Your task to perform on an android device: turn on the 24-hour format for clock Image 0: 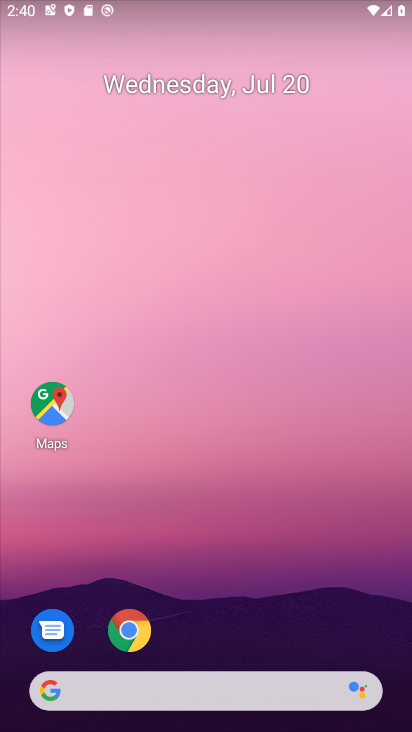
Step 0: drag from (347, 620) to (401, 334)
Your task to perform on an android device: turn on the 24-hour format for clock Image 1: 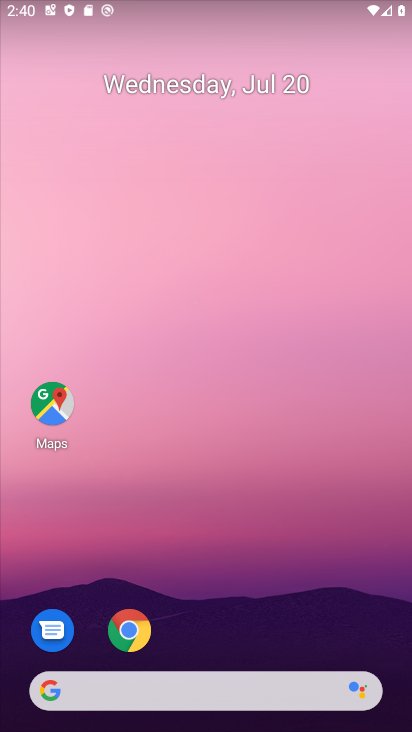
Step 1: drag from (341, 556) to (410, 417)
Your task to perform on an android device: turn on the 24-hour format for clock Image 2: 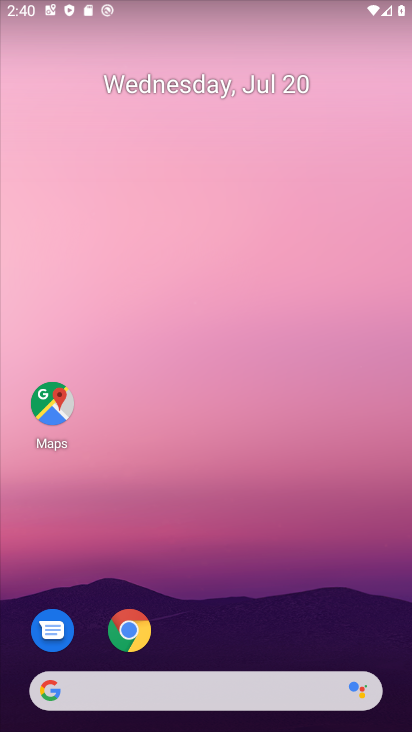
Step 2: drag from (291, 626) to (399, 308)
Your task to perform on an android device: turn on the 24-hour format for clock Image 3: 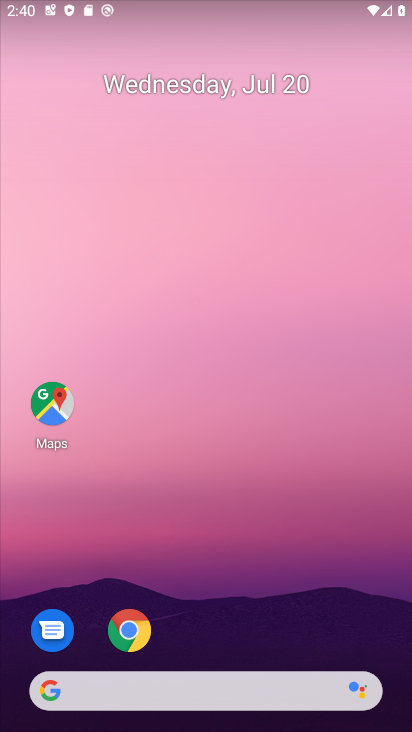
Step 3: drag from (328, 612) to (380, 34)
Your task to perform on an android device: turn on the 24-hour format for clock Image 4: 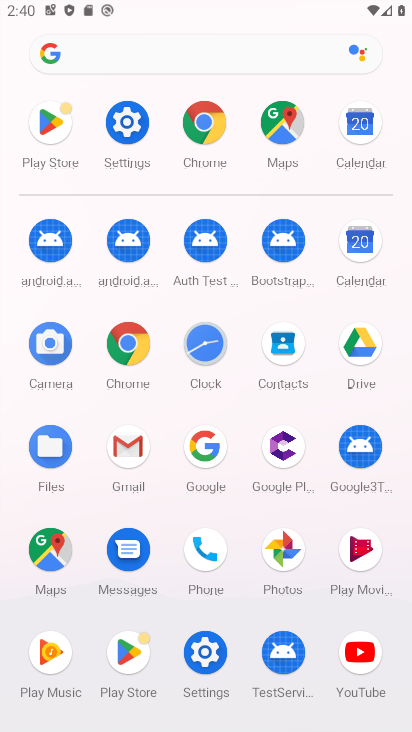
Step 4: click (195, 355)
Your task to perform on an android device: turn on the 24-hour format for clock Image 5: 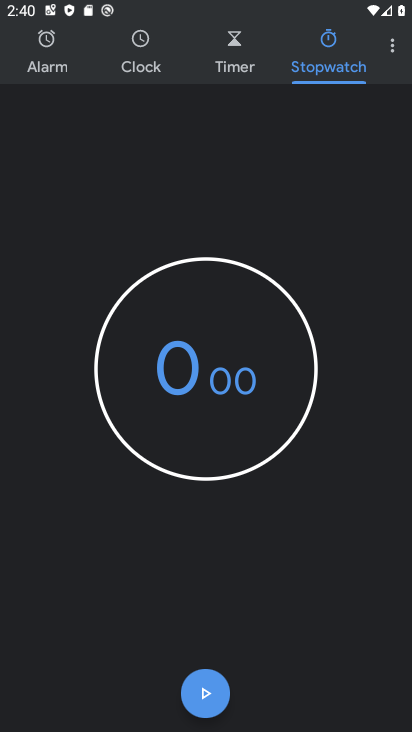
Step 5: click (394, 60)
Your task to perform on an android device: turn on the 24-hour format for clock Image 6: 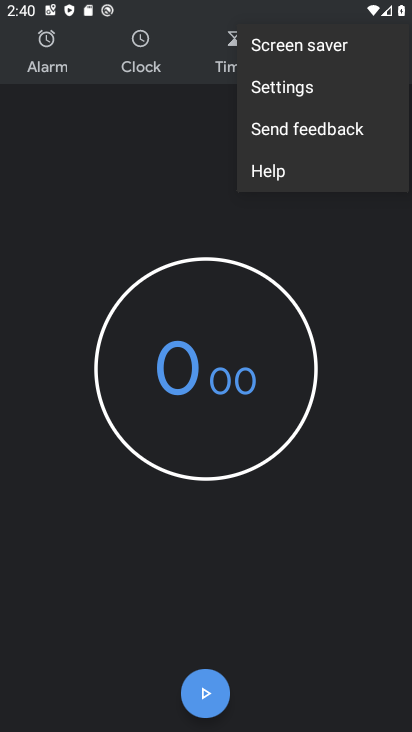
Step 6: click (333, 95)
Your task to perform on an android device: turn on the 24-hour format for clock Image 7: 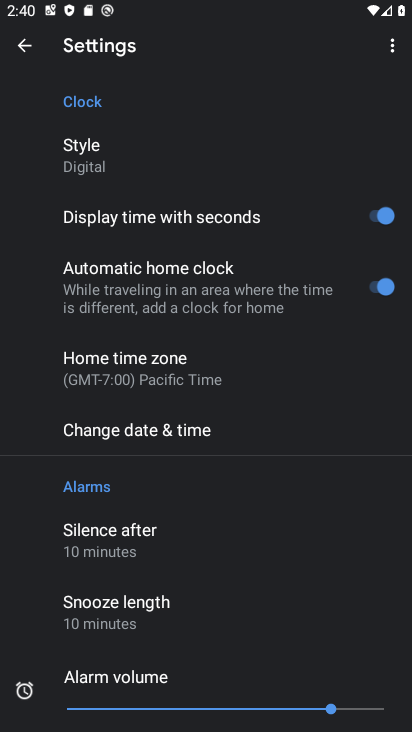
Step 7: drag from (321, 389) to (327, 243)
Your task to perform on an android device: turn on the 24-hour format for clock Image 8: 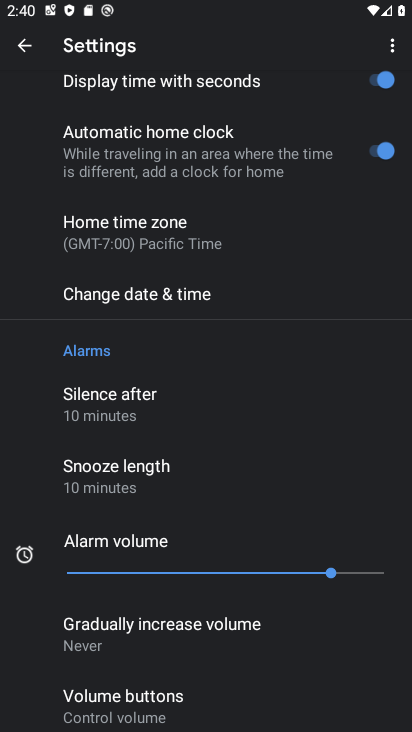
Step 8: drag from (321, 382) to (319, 286)
Your task to perform on an android device: turn on the 24-hour format for clock Image 9: 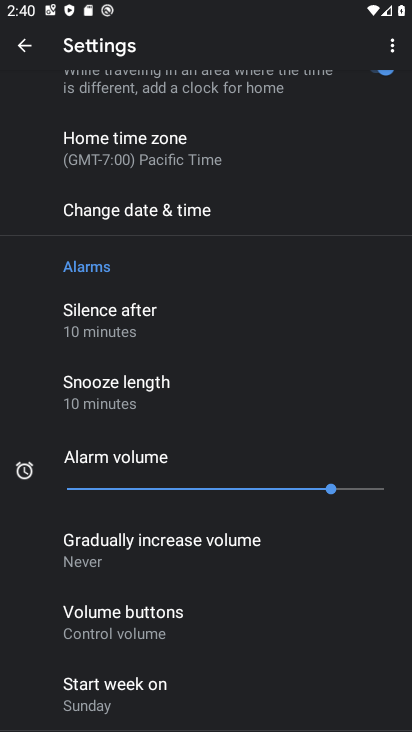
Step 9: drag from (316, 554) to (317, 407)
Your task to perform on an android device: turn on the 24-hour format for clock Image 10: 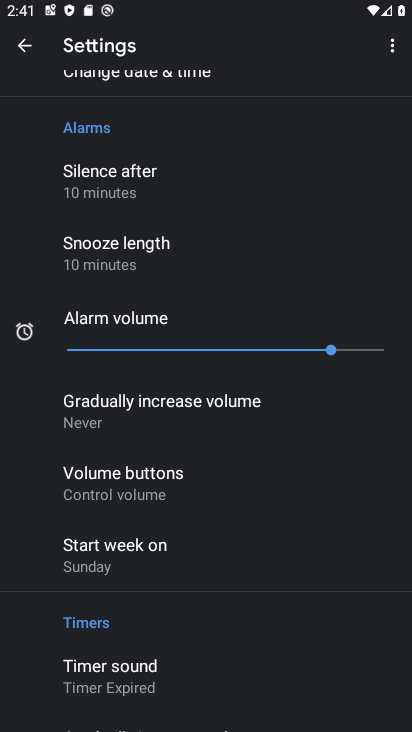
Step 10: drag from (306, 189) to (310, 308)
Your task to perform on an android device: turn on the 24-hour format for clock Image 11: 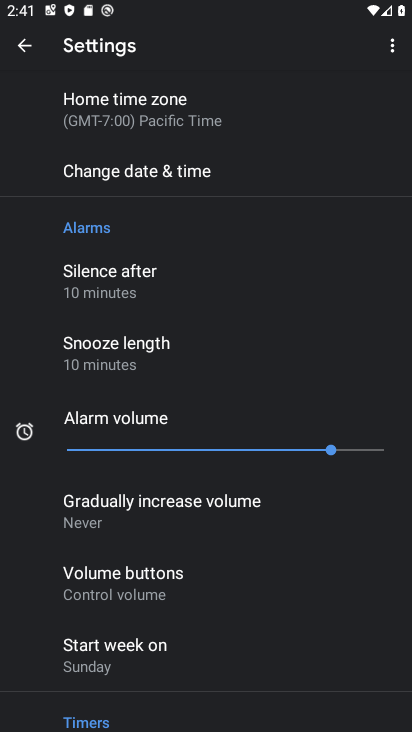
Step 11: click (254, 162)
Your task to perform on an android device: turn on the 24-hour format for clock Image 12: 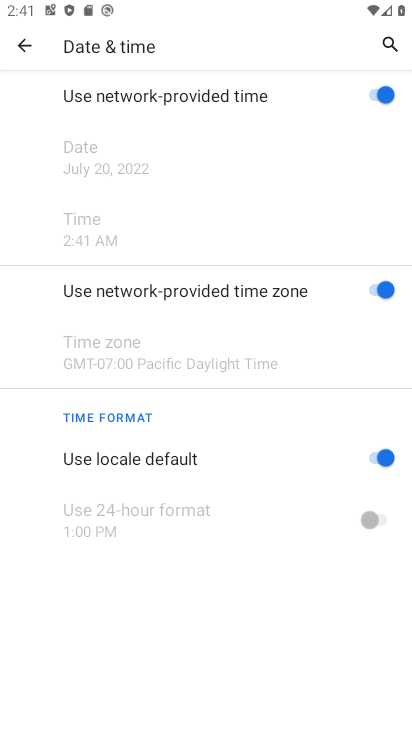
Step 12: click (376, 453)
Your task to perform on an android device: turn on the 24-hour format for clock Image 13: 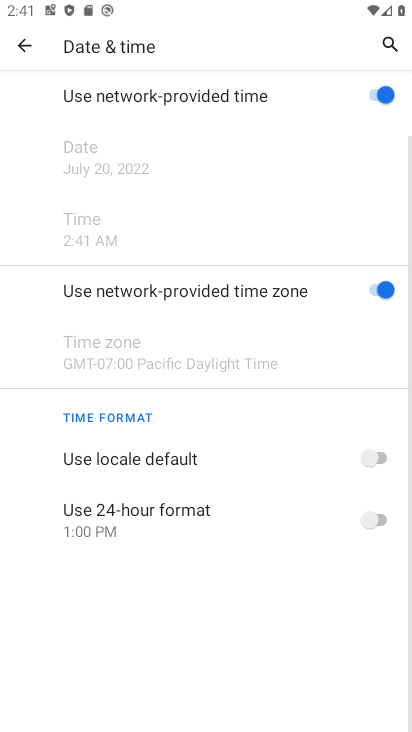
Step 13: click (373, 511)
Your task to perform on an android device: turn on the 24-hour format for clock Image 14: 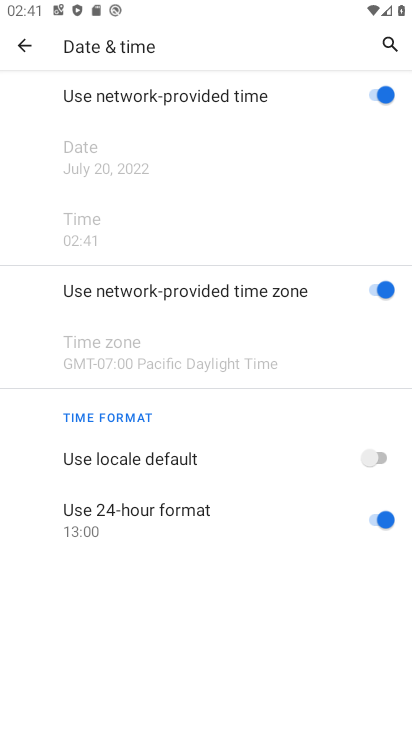
Step 14: task complete